Your task to perform on an android device: Go to Yahoo.com Image 0: 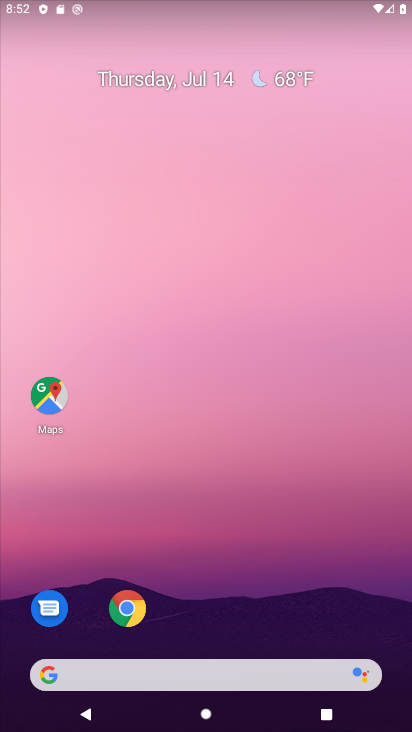
Step 0: click (347, 274)
Your task to perform on an android device: Go to Yahoo.com Image 1: 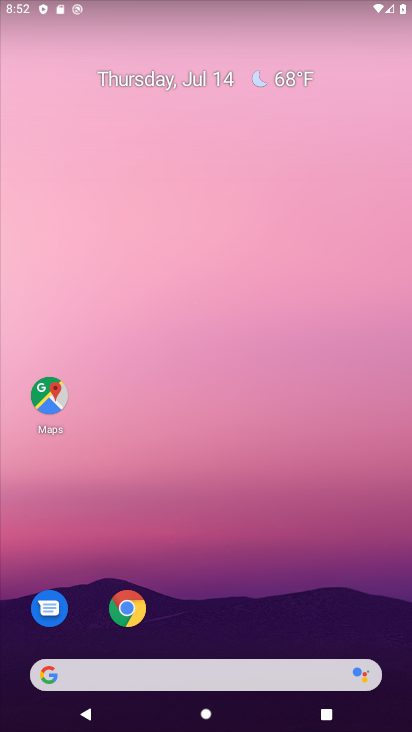
Step 1: click (139, 610)
Your task to perform on an android device: Go to Yahoo.com Image 2: 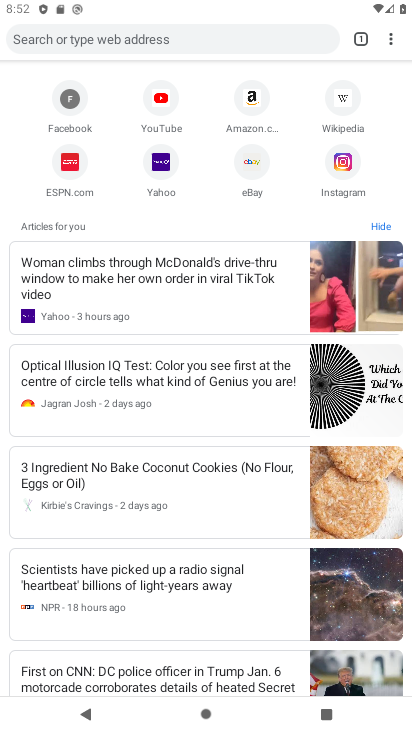
Step 2: click (154, 160)
Your task to perform on an android device: Go to Yahoo.com Image 3: 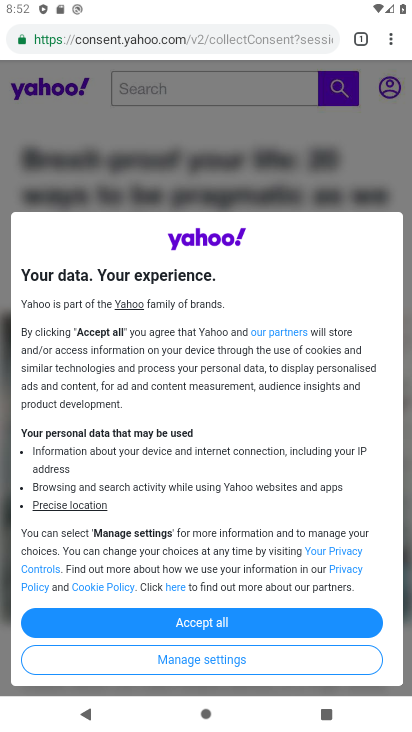
Step 3: click (249, 630)
Your task to perform on an android device: Go to Yahoo.com Image 4: 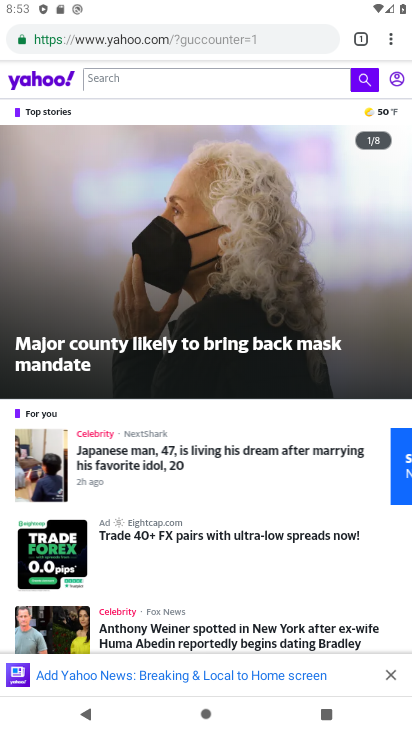
Step 4: task complete